Your task to perform on an android device: find snoozed emails in the gmail app Image 0: 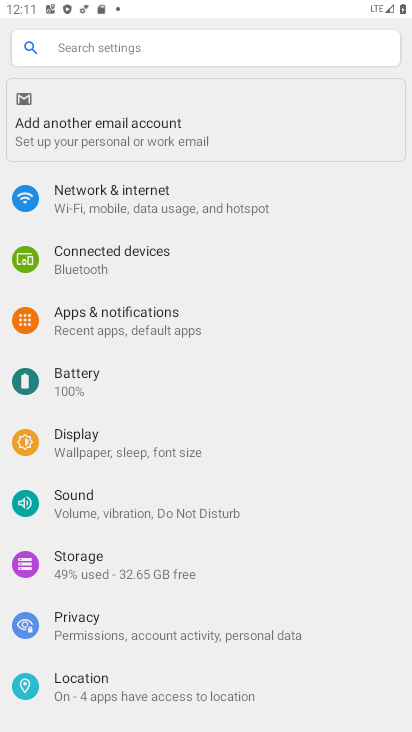
Step 0: press home button
Your task to perform on an android device: find snoozed emails in the gmail app Image 1: 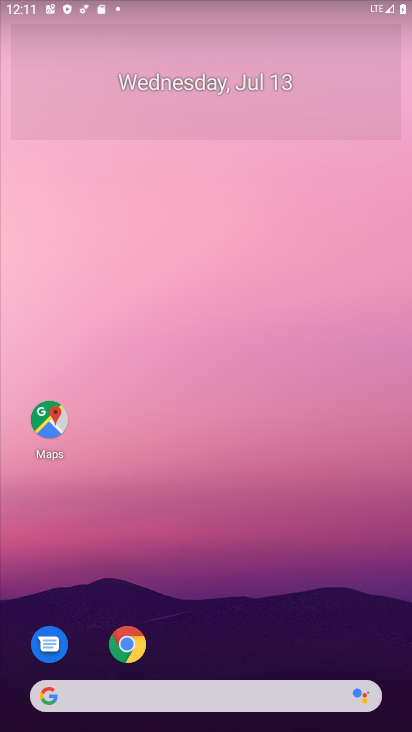
Step 1: drag from (190, 639) to (220, 122)
Your task to perform on an android device: find snoozed emails in the gmail app Image 2: 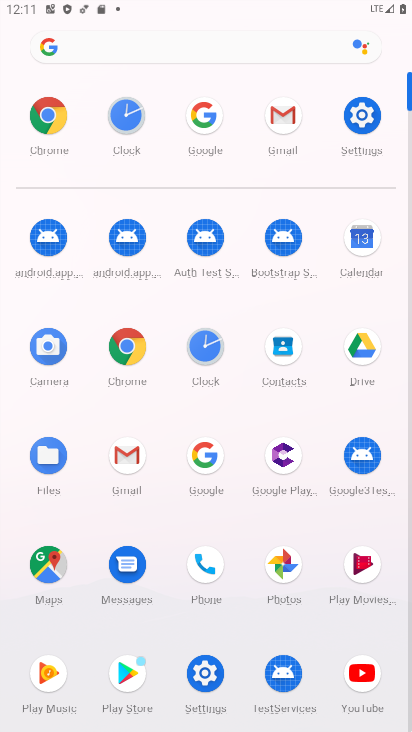
Step 2: click (281, 116)
Your task to perform on an android device: find snoozed emails in the gmail app Image 3: 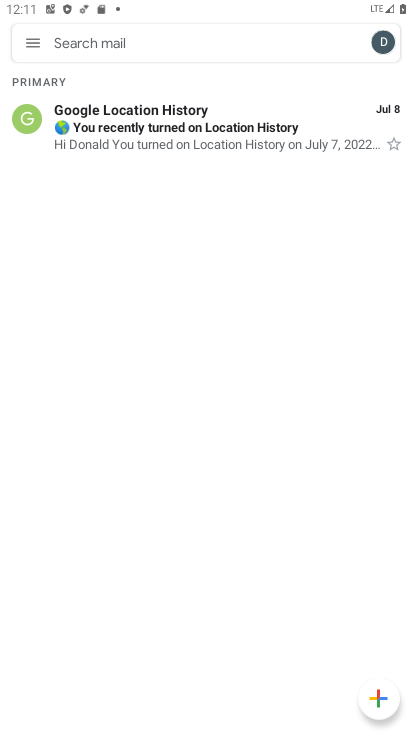
Step 3: click (27, 41)
Your task to perform on an android device: find snoozed emails in the gmail app Image 4: 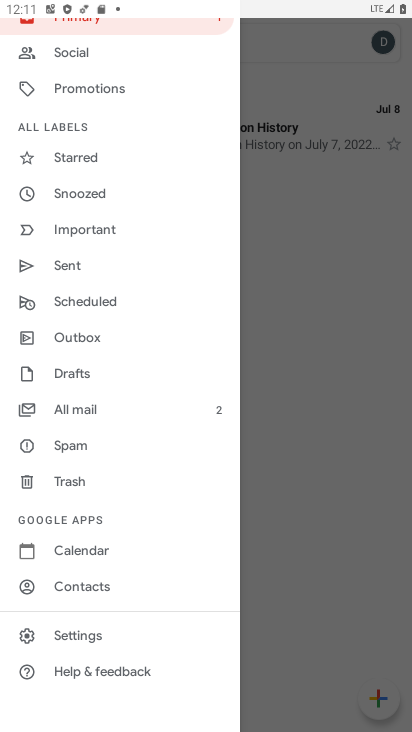
Step 4: click (72, 197)
Your task to perform on an android device: find snoozed emails in the gmail app Image 5: 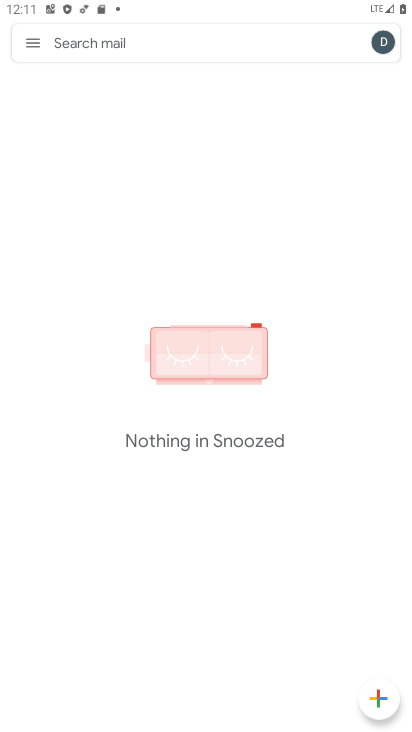
Step 5: task complete